Your task to perform on an android device: Search for bose soundsport free on target, select the first entry, add it to the cart, then select checkout. Image 0: 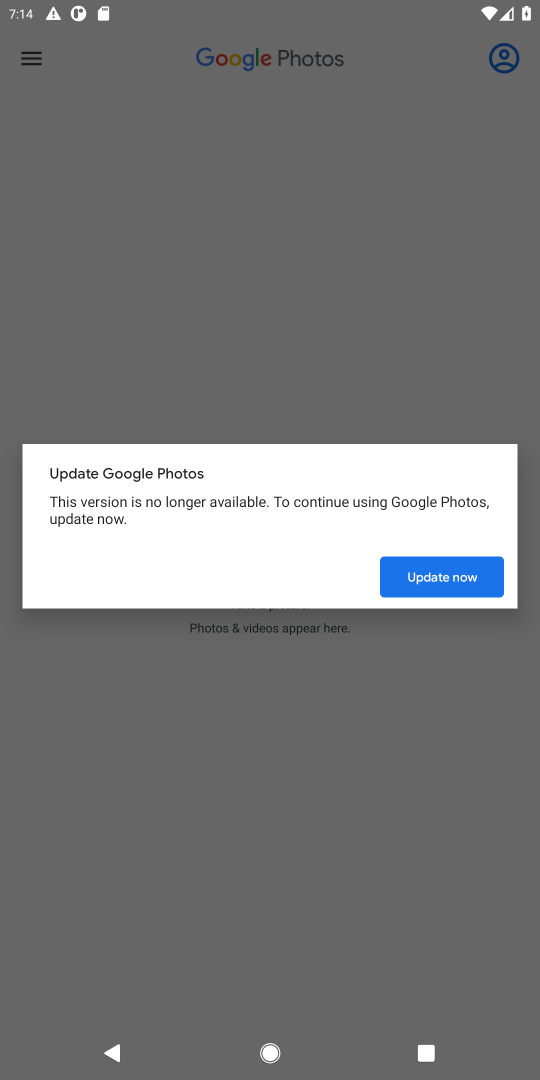
Step 0: press home button
Your task to perform on an android device: Search for bose soundsport free on target, select the first entry, add it to the cart, then select checkout. Image 1: 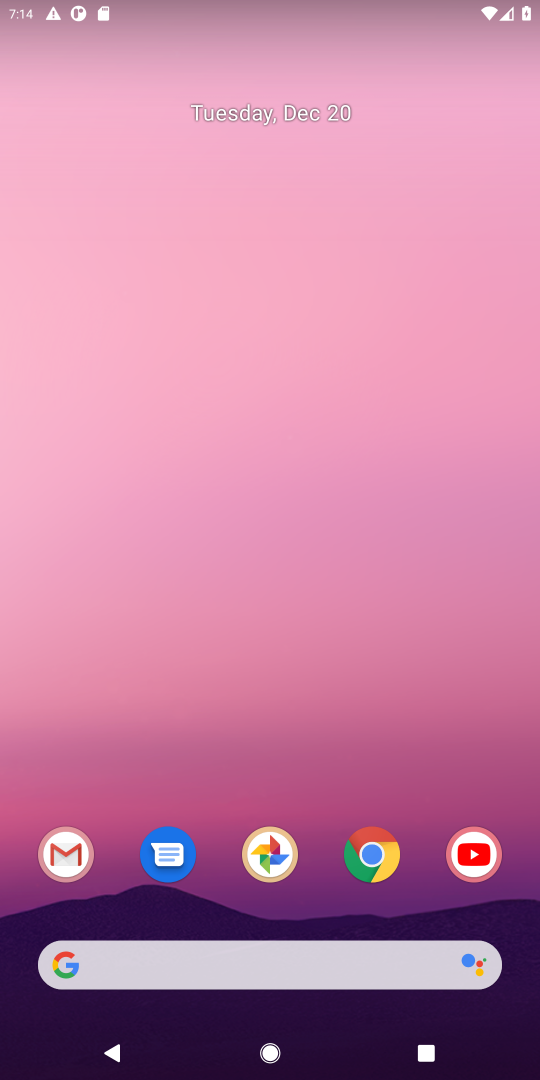
Step 1: click (365, 866)
Your task to perform on an android device: Search for bose soundsport free on target, select the first entry, add it to the cart, then select checkout. Image 2: 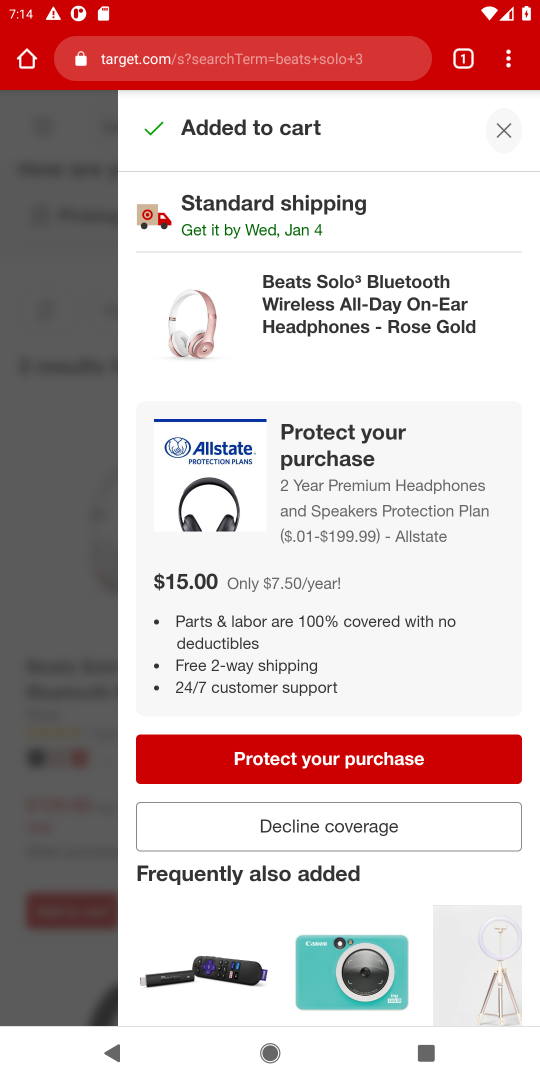
Step 2: click (506, 136)
Your task to perform on an android device: Search for bose soundsport free on target, select the first entry, add it to the cart, then select checkout. Image 3: 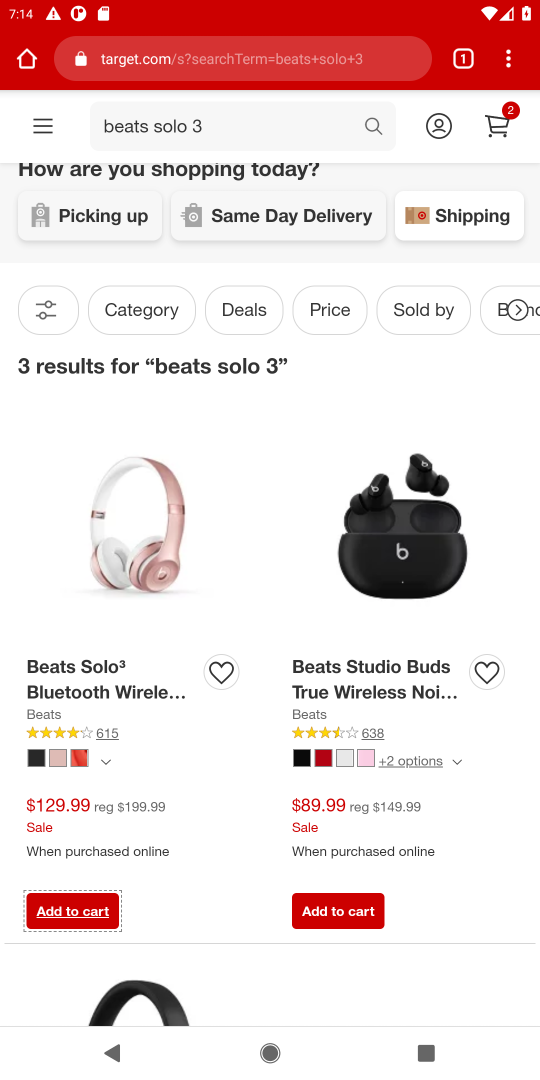
Step 3: click (368, 124)
Your task to perform on an android device: Search for bose soundsport free on target, select the first entry, add it to the cart, then select checkout. Image 4: 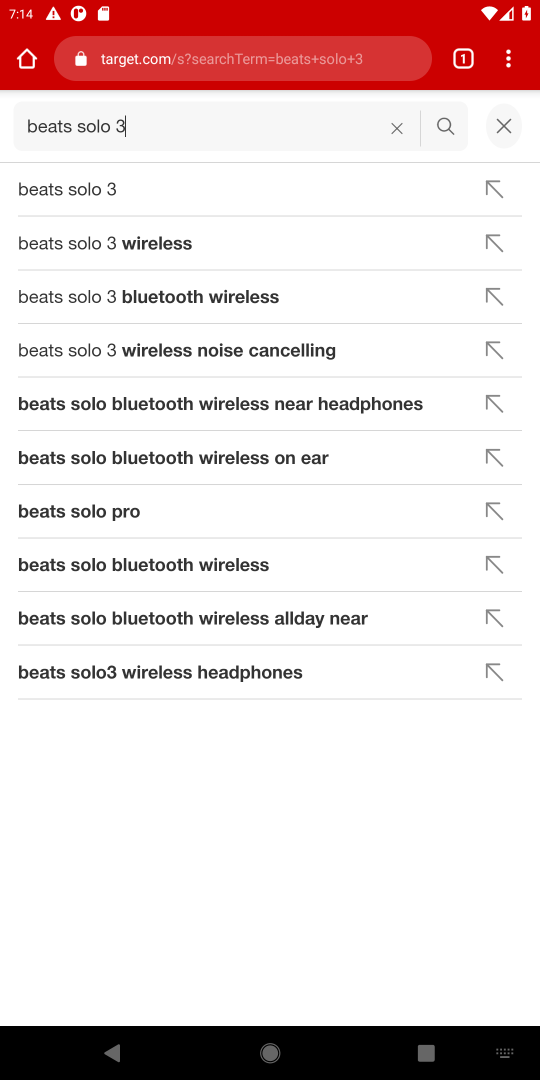
Step 4: click (397, 124)
Your task to perform on an android device: Search for bose soundsport free on target, select the first entry, add it to the cart, then select checkout. Image 5: 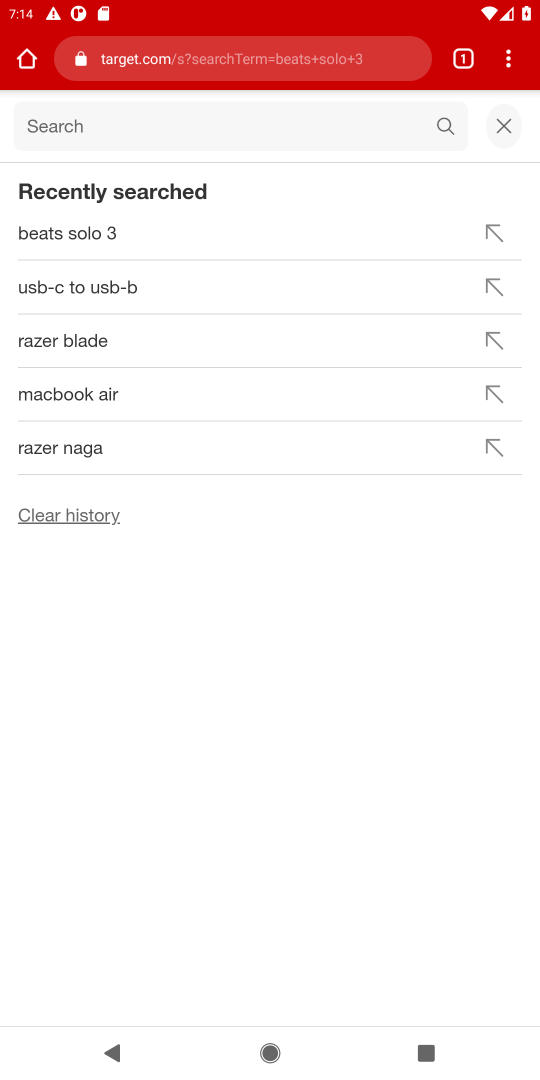
Step 5: type "bose soundsport free"
Your task to perform on an android device: Search for bose soundsport free on target, select the first entry, add it to the cart, then select checkout. Image 6: 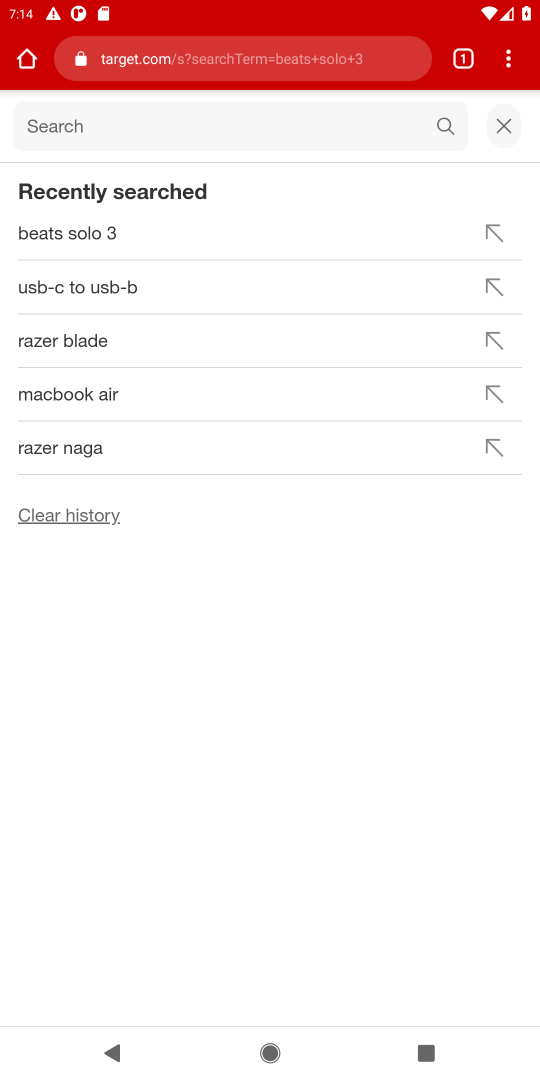
Step 6: click (49, 130)
Your task to perform on an android device: Search for bose soundsport free on target, select the first entry, add it to the cart, then select checkout. Image 7: 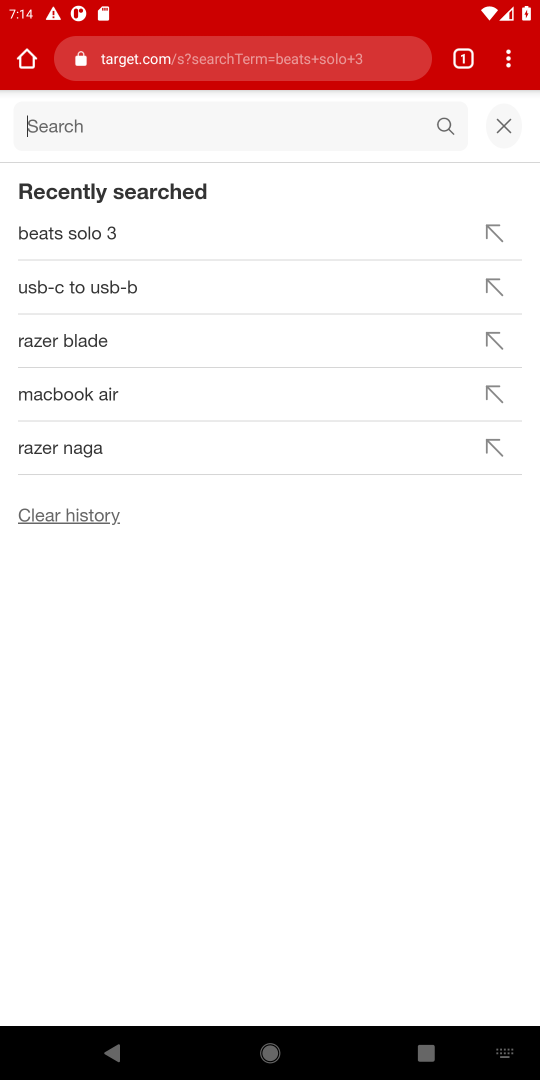
Step 7: type "bose soundsport free"
Your task to perform on an android device: Search for bose soundsport free on target, select the first entry, add it to the cart, then select checkout. Image 8: 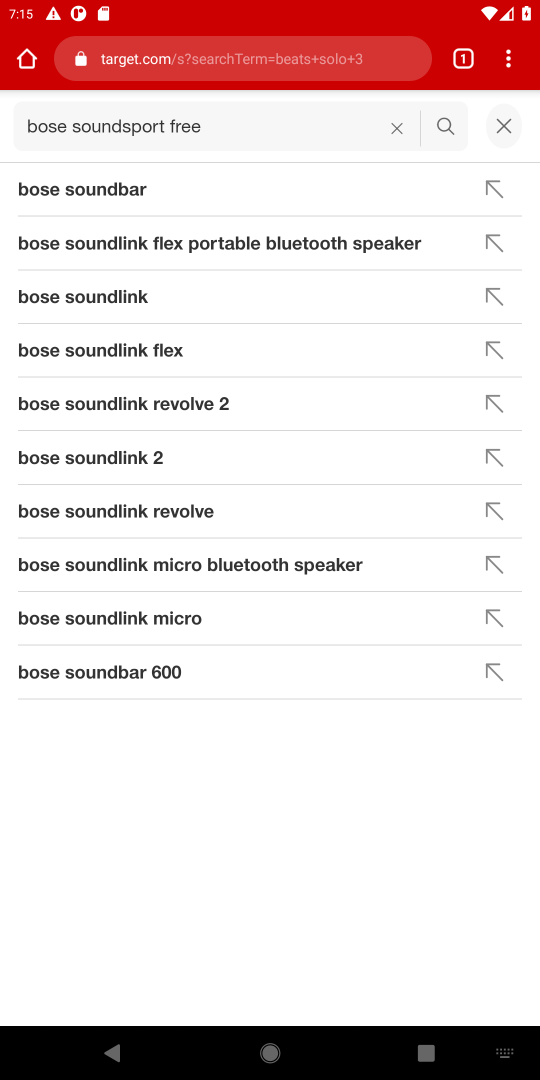
Step 8: click (451, 129)
Your task to perform on an android device: Search for bose soundsport free on target, select the first entry, add it to the cart, then select checkout. Image 9: 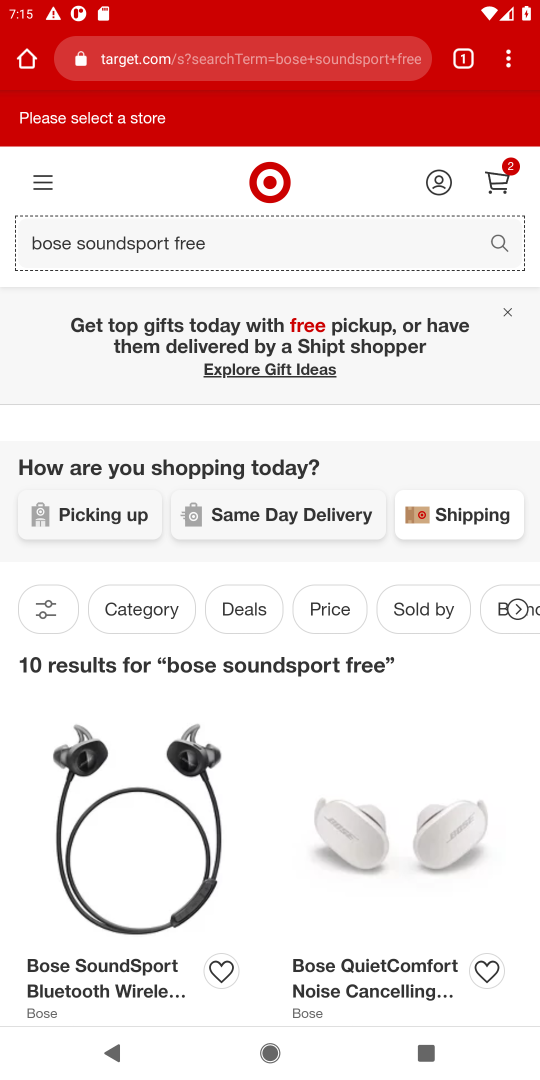
Step 9: drag from (217, 754) to (217, 495)
Your task to perform on an android device: Search for bose soundsport free on target, select the first entry, add it to the cart, then select checkout. Image 10: 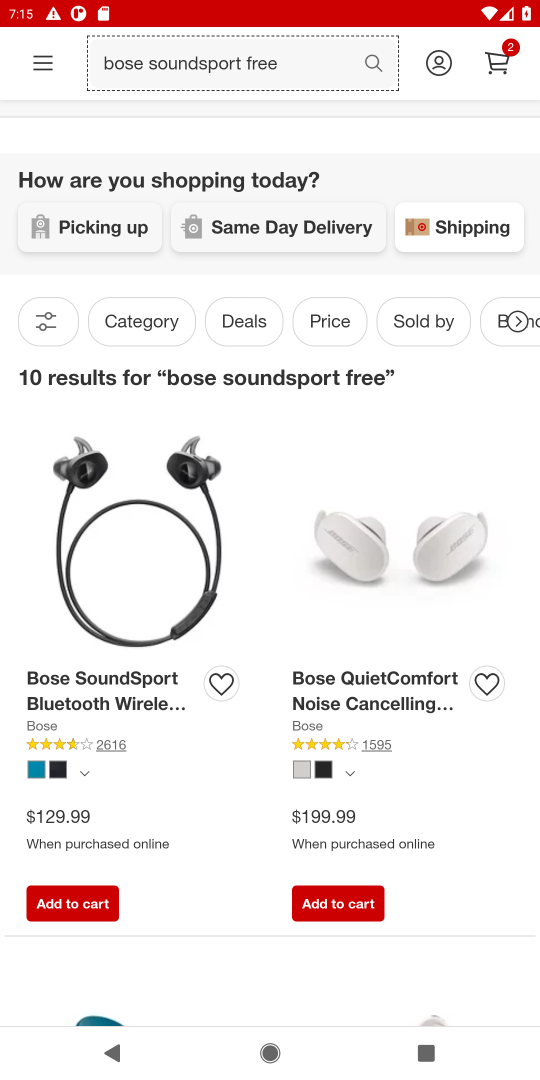
Step 10: click (67, 698)
Your task to perform on an android device: Search for bose soundsport free on target, select the first entry, add it to the cart, then select checkout. Image 11: 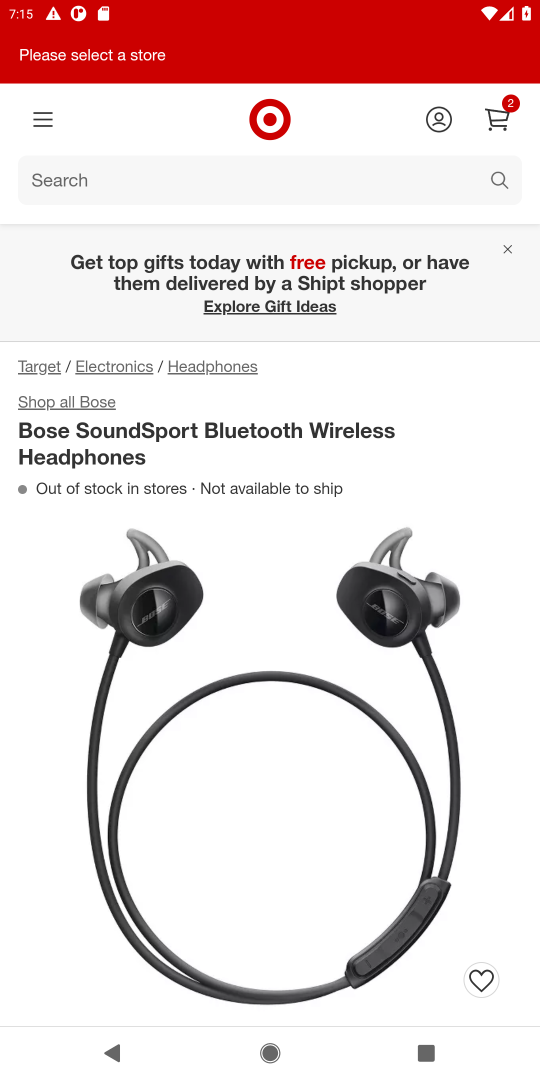
Step 11: task complete